Your task to perform on an android device: turn off notifications in google photos Image 0: 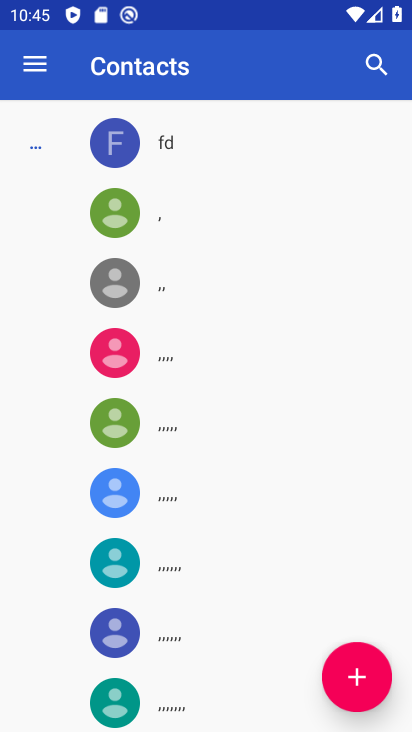
Step 0: press home button
Your task to perform on an android device: turn off notifications in google photos Image 1: 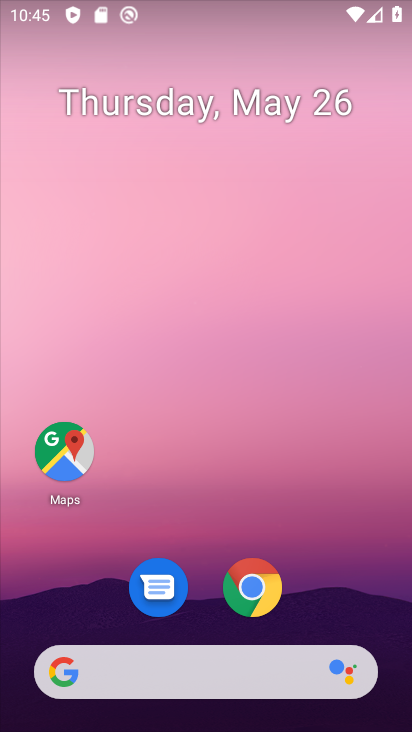
Step 1: drag from (241, 701) to (295, 113)
Your task to perform on an android device: turn off notifications in google photos Image 2: 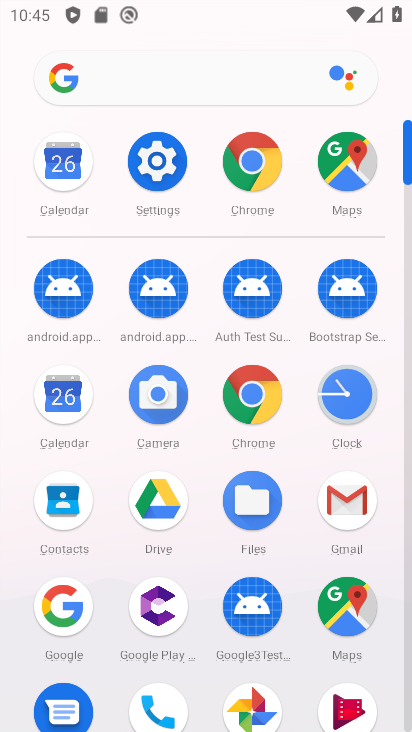
Step 2: click (224, 704)
Your task to perform on an android device: turn off notifications in google photos Image 3: 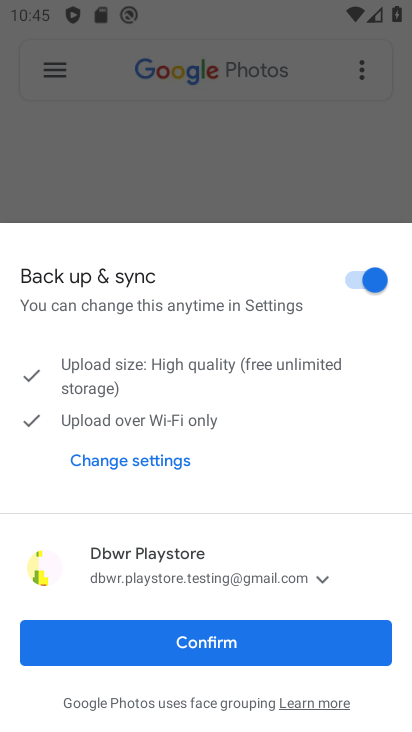
Step 3: click (242, 635)
Your task to perform on an android device: turn off notifications in google photos Image 4: 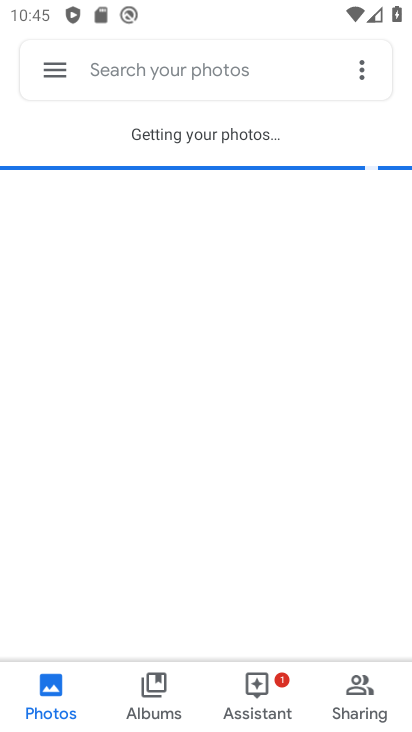
Step 4: click (59, 98)
Your task to perform on an android device: turn off notifications in google photos Image 5: 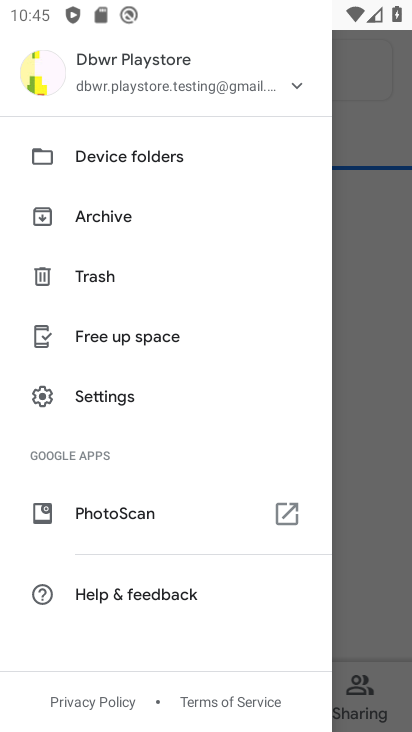
Step 5: click (88, 398)
Your task to perform on an android device: turn off notifications in google photos Image 6: 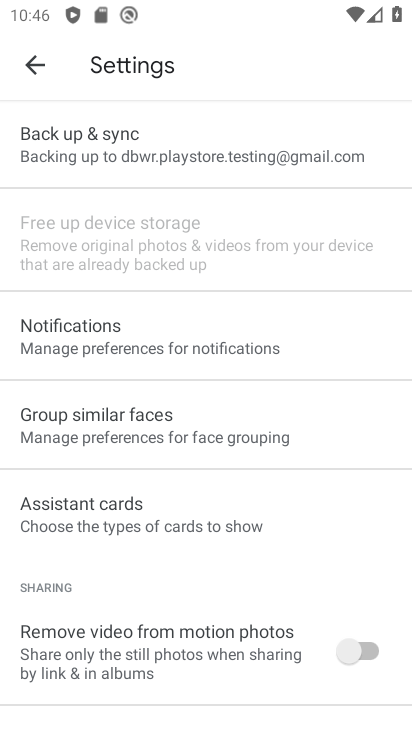
Step 6: click (97, 353)
Your task to perform on an android device: turn off notifications in google photos Image 7: 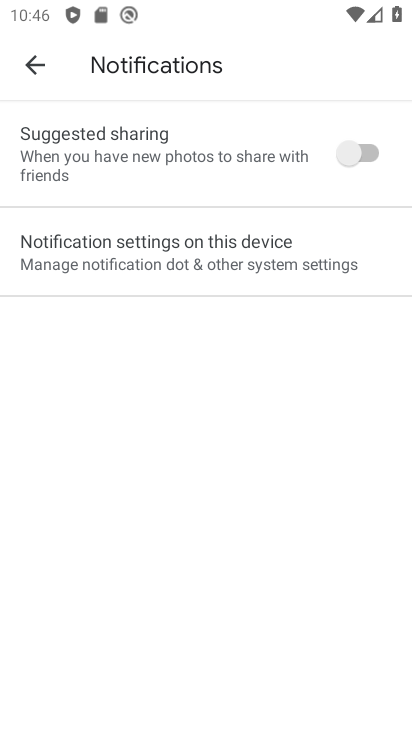
Step 7: click (129, 260)
Your task to perform on an android device: turn off notifications in google photos Image 8: 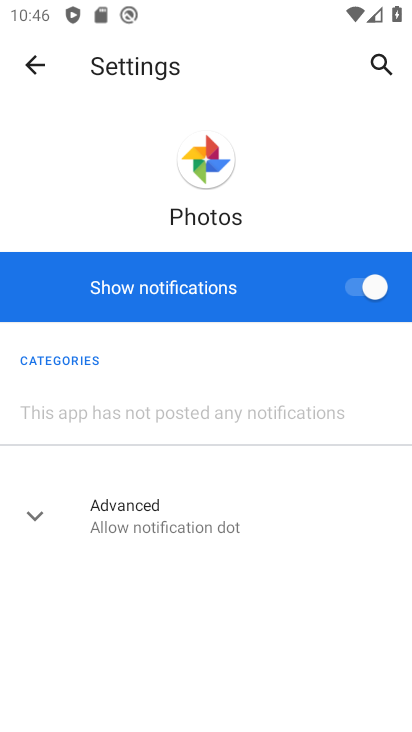
Step 8: click (354, 311)
Your task to perform on an android device: turn off notifications in google photos Image 9: 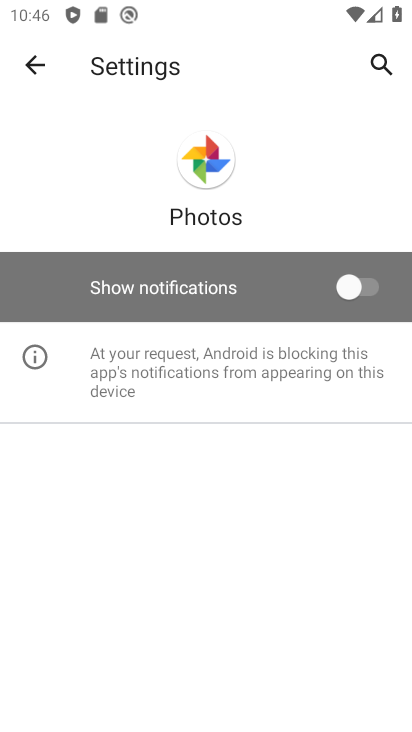
Step 9: task complete